Your task to perform on an android device: Open the phone app and click the voicemail tab. Image 0: 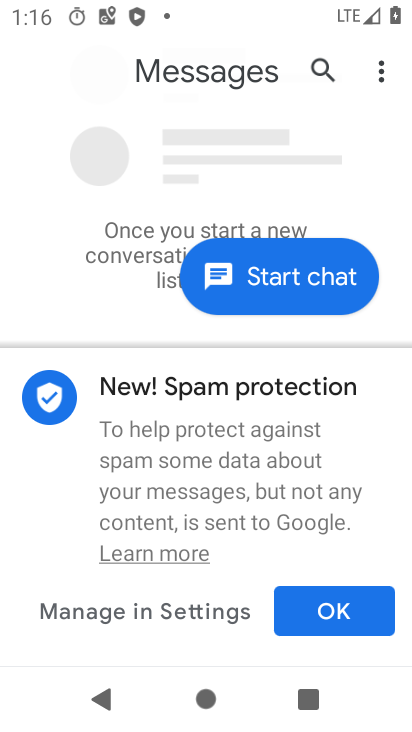
Step 0: press home button
Your task to perform on an android device: Open the phone app and click the voicemail tab. Image 1: 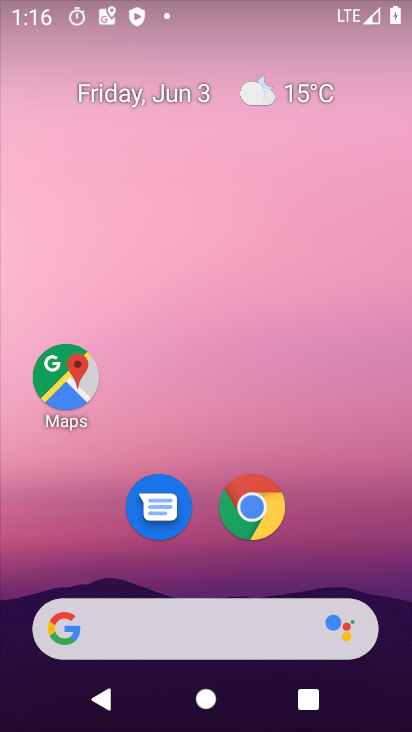
Step 1: drag from (401, 657) to (225, 20)
Your task to perform on an android device: Open the phone app and click the voicemail tab. Image 2: 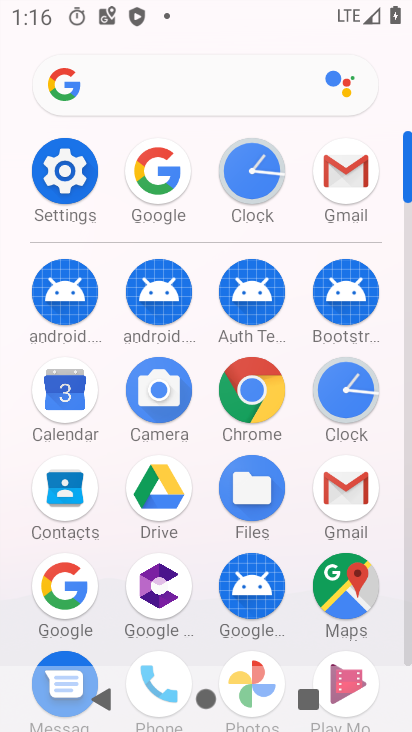
Step 2: click (148, 658)
Your task to perform on an android device: Open the phone app and click the voicemail tab. Image 3: 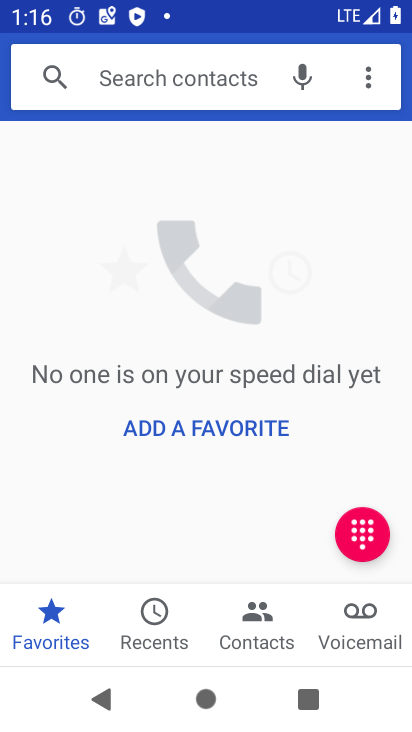
Step 3: click (344, 609)
Your task to perform on an android device: Open the phone app and click the voicemail tab. Image 4: 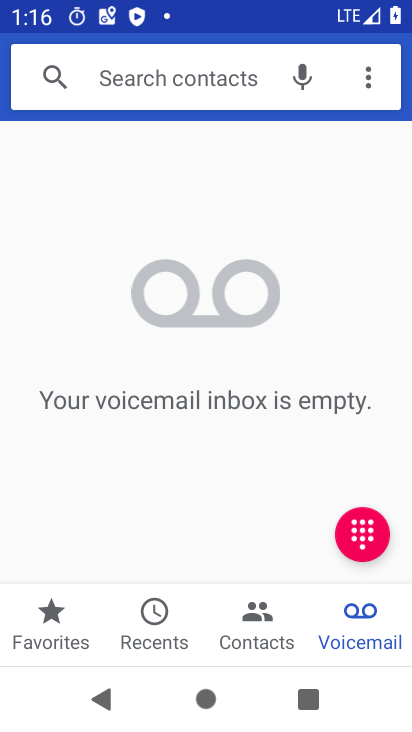
Step 4: task complete